Your task to perform on an android device: turn vacation reply on in the gmail app Image 0: 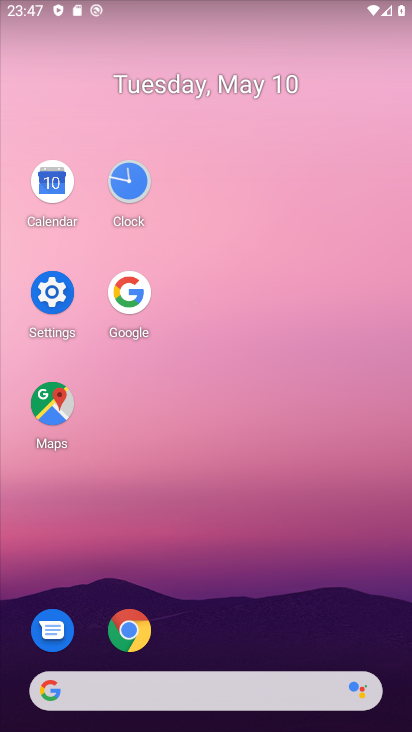
Step 0: drag from (273, 638) to (297, 172)
Your task to perform on an android device: turn vacation reply on in the gmail app Image 1: 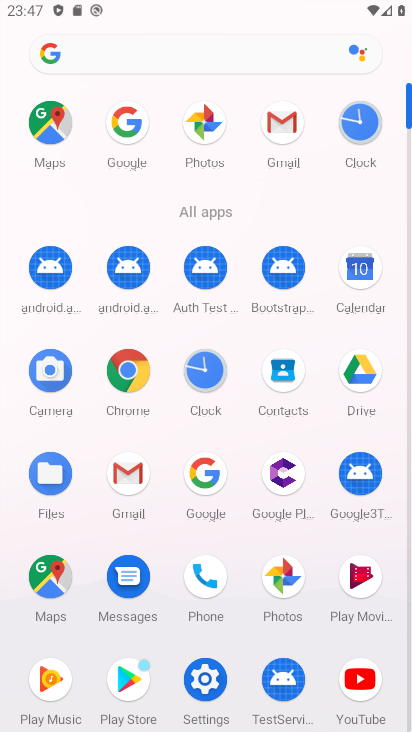
Step 1: drag from (294, 137) to (179, 208)
Your task to perform on an android device: turn vacation reply on in the gmail app Image 2: 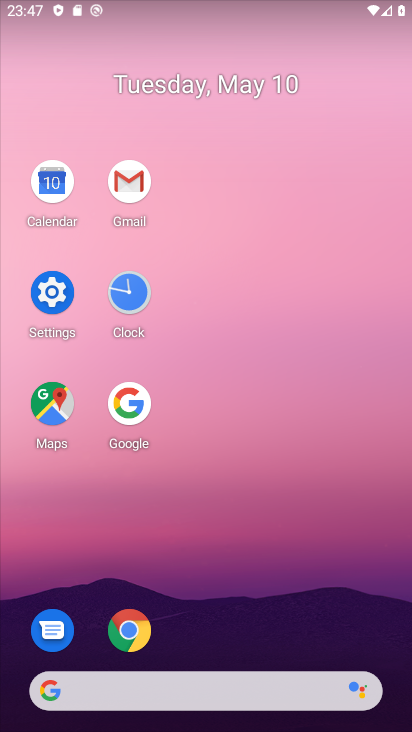
Step 2: click (128, 180)
Your task to perform on an android device: turn vacation reply on in the gmail app Image 3: 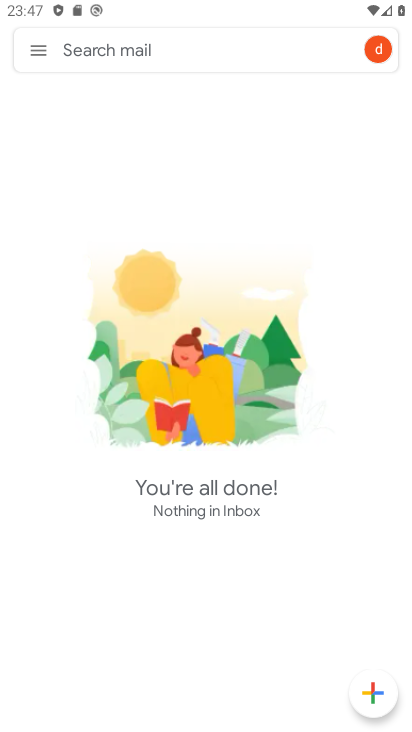
Step 3: click (39, 45)
Your task to perform on an android device: turn vacation reply on in the gmail app Image 4: 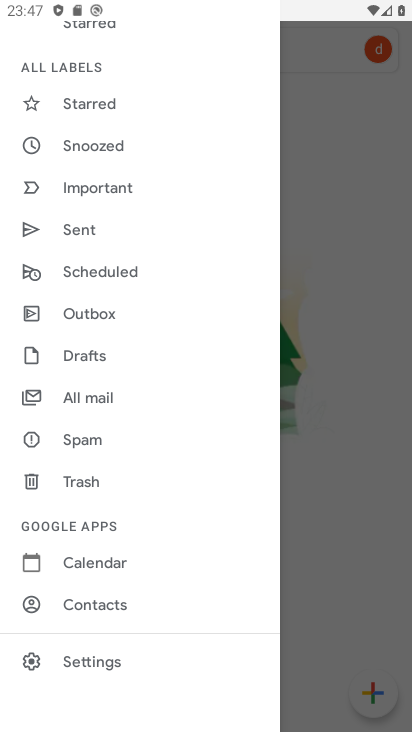
Step 4: click (105, 654)
Your task to perform on an android device: turn vacation reply on in the gmail app Image 5: 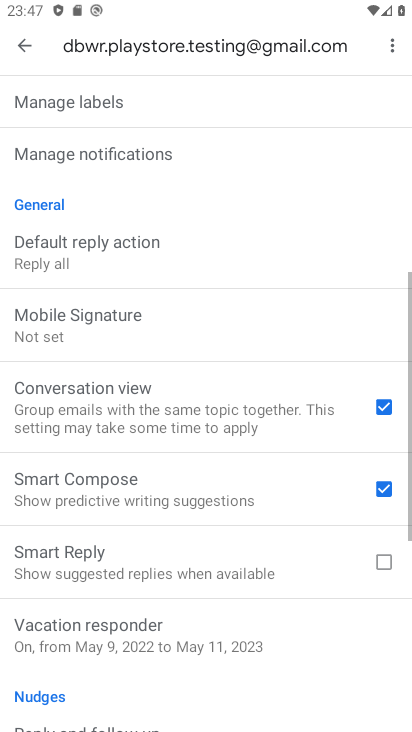
Step 5: drag from (178, 452) to (178, 203)
Your task to perform on an android device: turn vacation reply on in the gmail app Image 6: 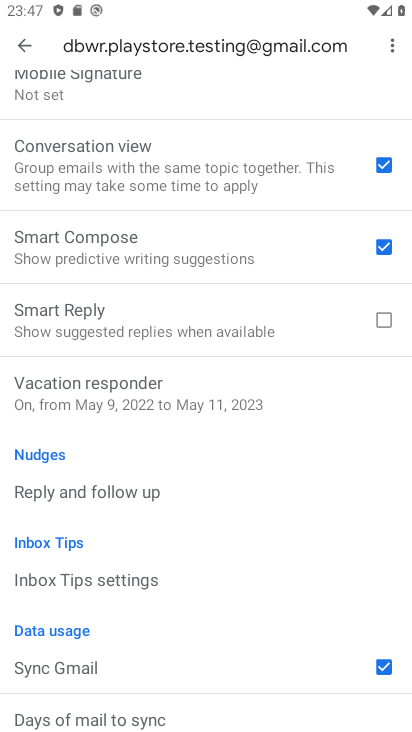
Step 6: click (169, 416)
Your task to perform on an android device: turn vacation reply on in the gmail app Image 7: 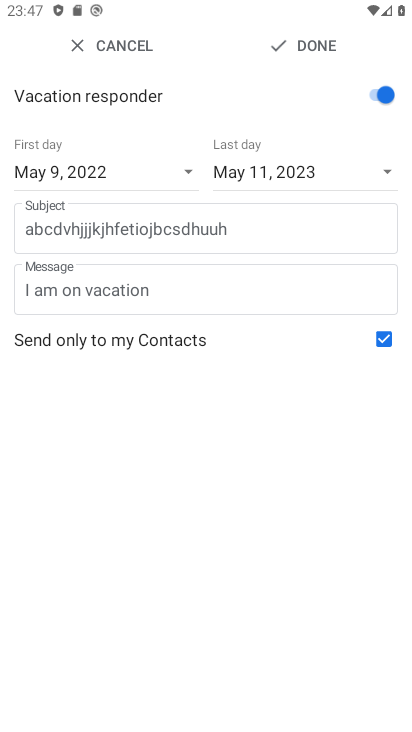
Step 7: click (310, 42)
Your task to perform on an android device: turn vacation reply on in the gmail app Image 8: 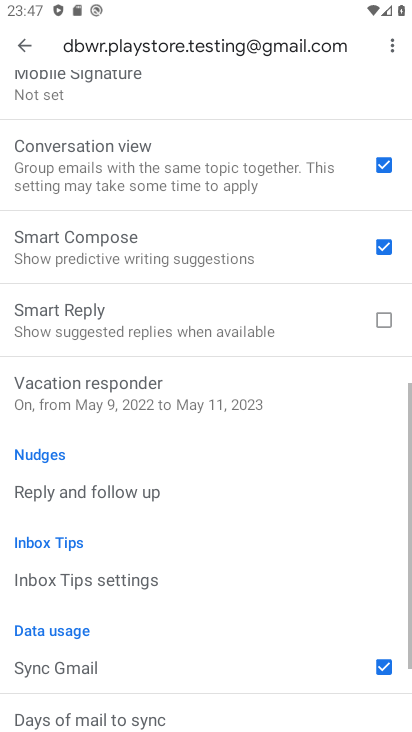
Step 8: task complete